Your task to perform on an android device: Clear the shopping cart on ebay.com. Image 0: 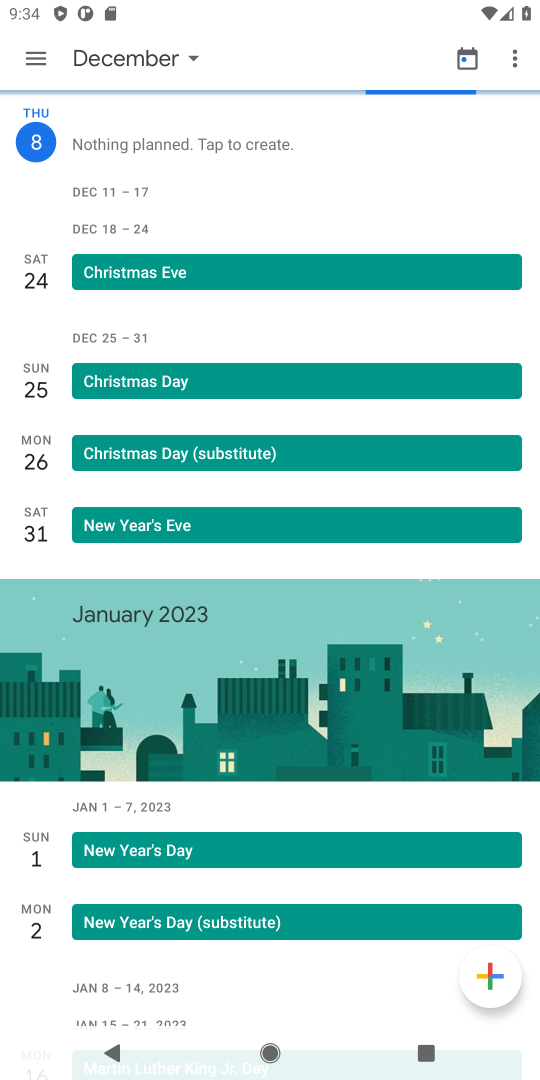
Step 0: press home button
Your task to perform on an android device: Clear the shopping cart on ebay.com. Image 1: 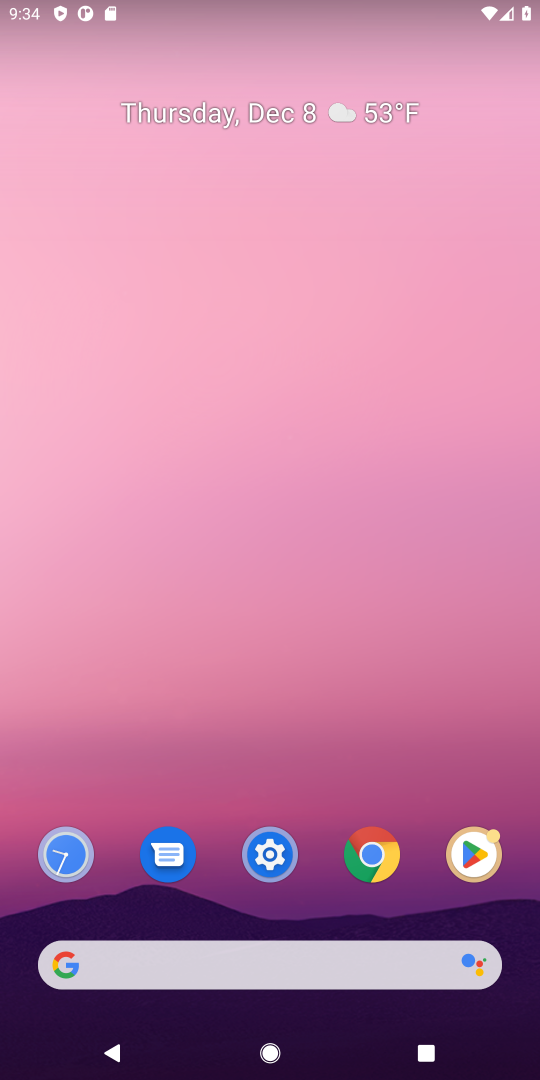
Step 1: click (88, 965)
Your task to perform on an android device: Clear the shopping cart on ebay.com. Image 2: 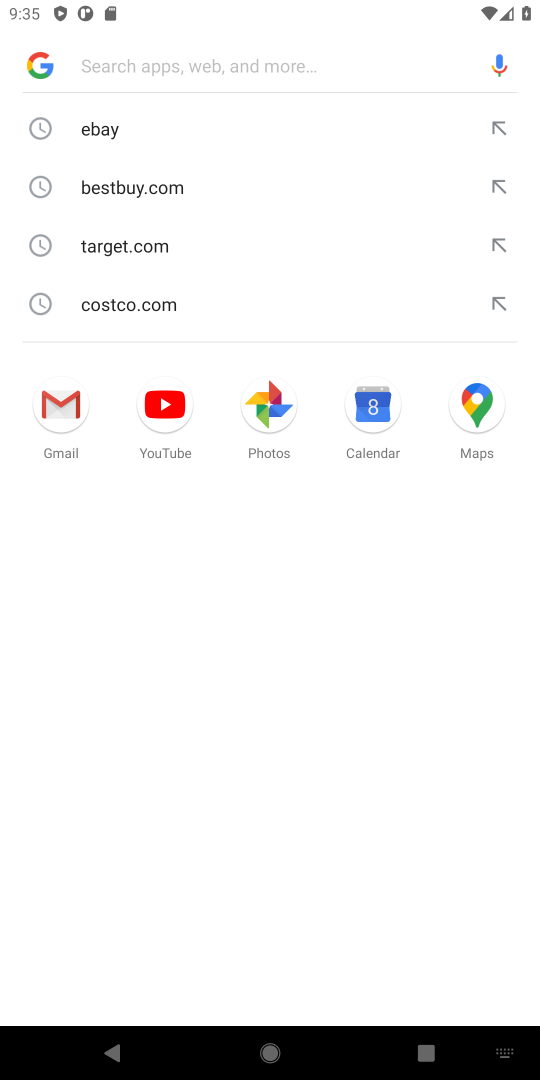
Step 2: press enter
Your task to perform on an android device: Clear the shopping cart on ebay.com. Image 3: 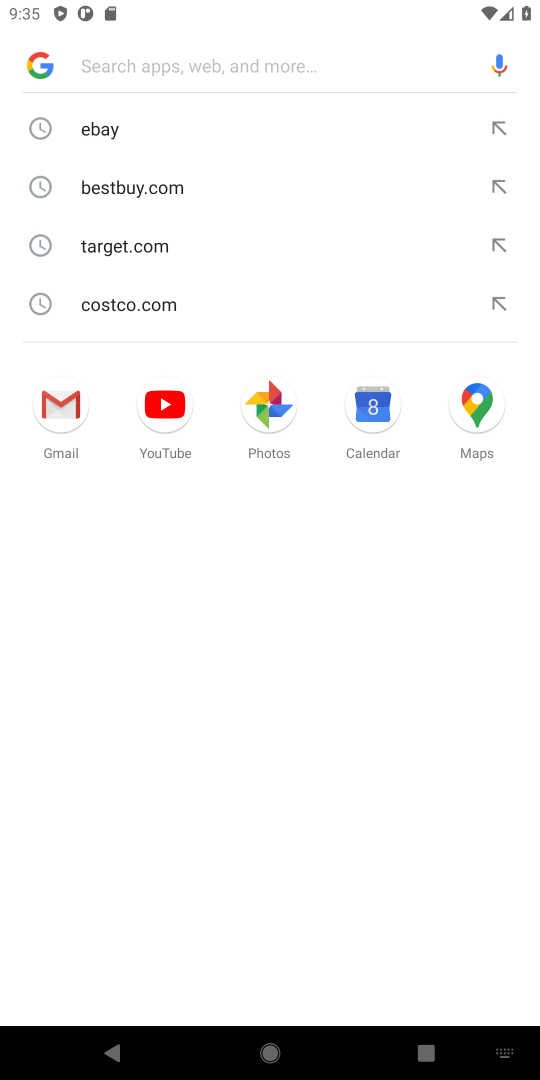
Step 3: type "ebay.com"
Your task to perform on an android device: Clear the shopping cart on ebay.com. Image 4: 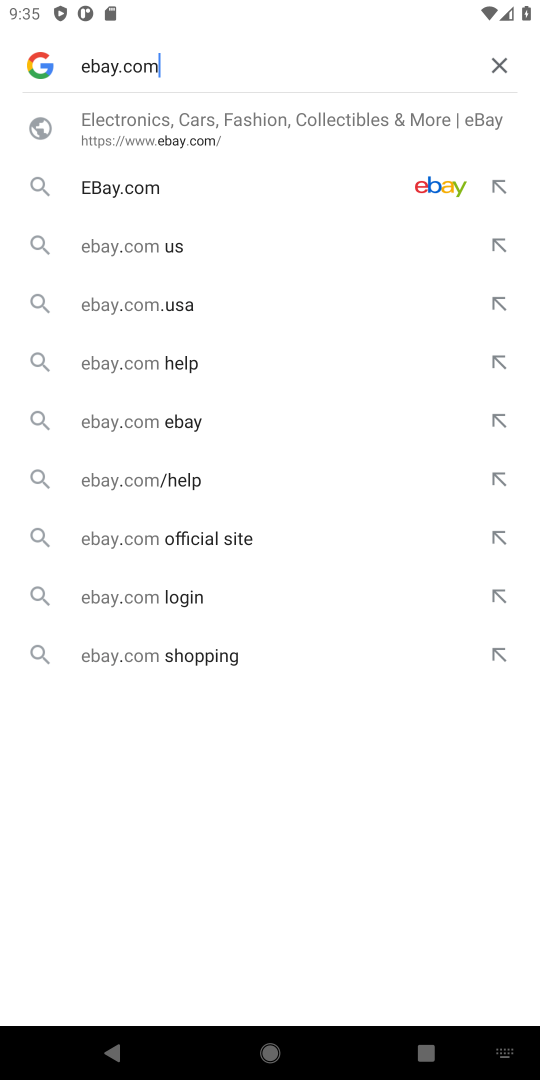
Step 4: press enter
Your task to perform on an android device: Clear the shopping cart on ebay.com. Image 5: 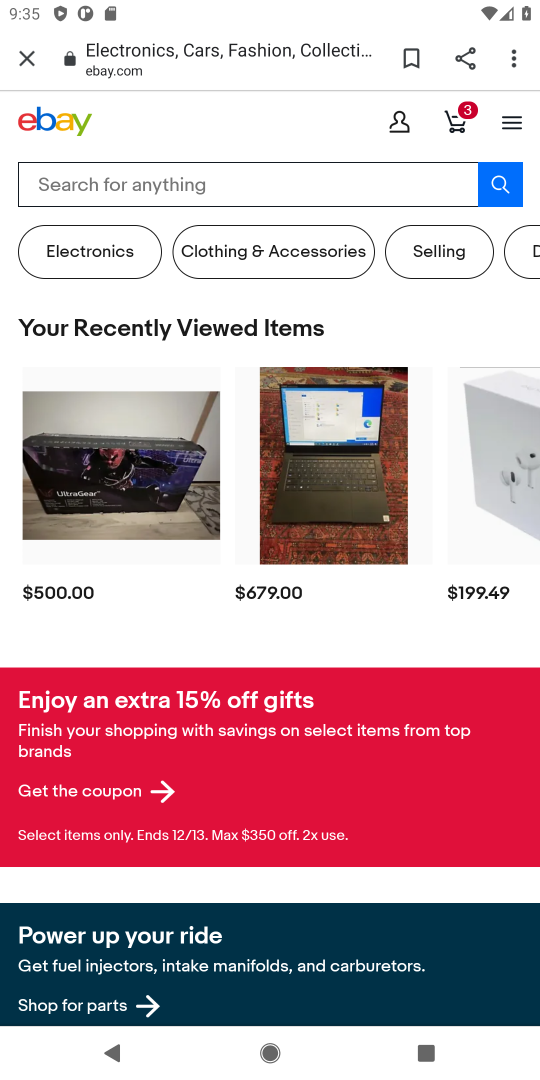
Step 5: click (453, 109)
Your task to perform on an android device: Clear the shopping cart on ebay.com. Image 6: 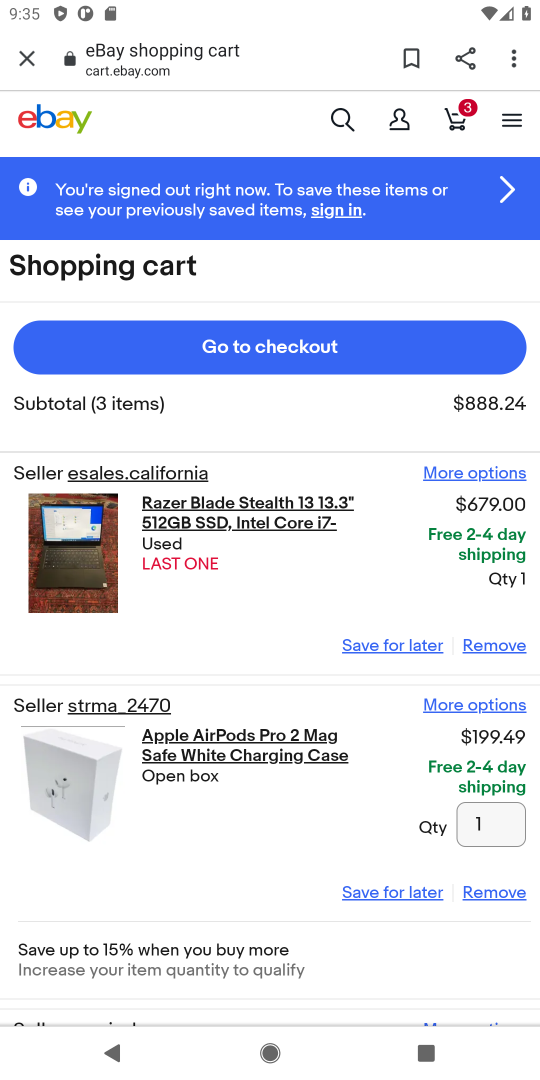
Step 6: click (494, 652)
Your task to perform on an android device: Clear the shopping cart on ebay.com. Image 7: 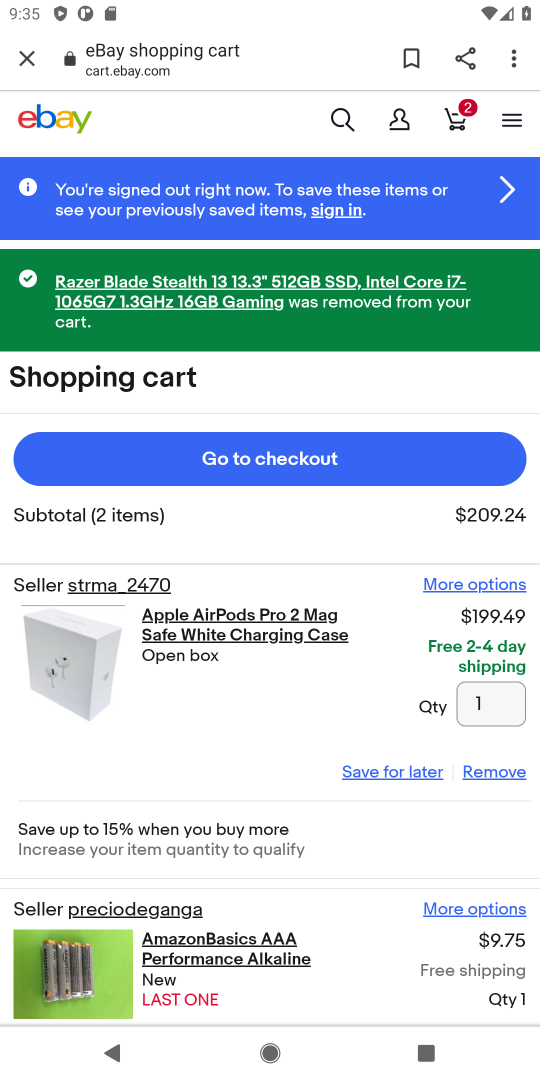
Step 7: click (495, 777)
Your task to perform on an android device: Clear the shopping cart on ebay.com. Image 8: 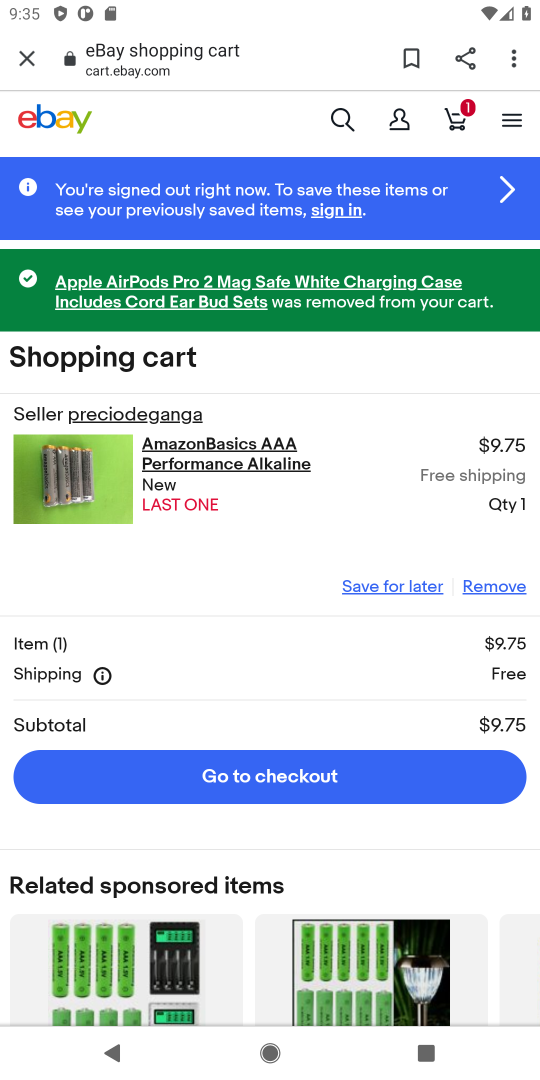
Step 8: click (482, 586)
Your task to perform on an android device: Clear the shopping cart on ebay.com. Image 9: 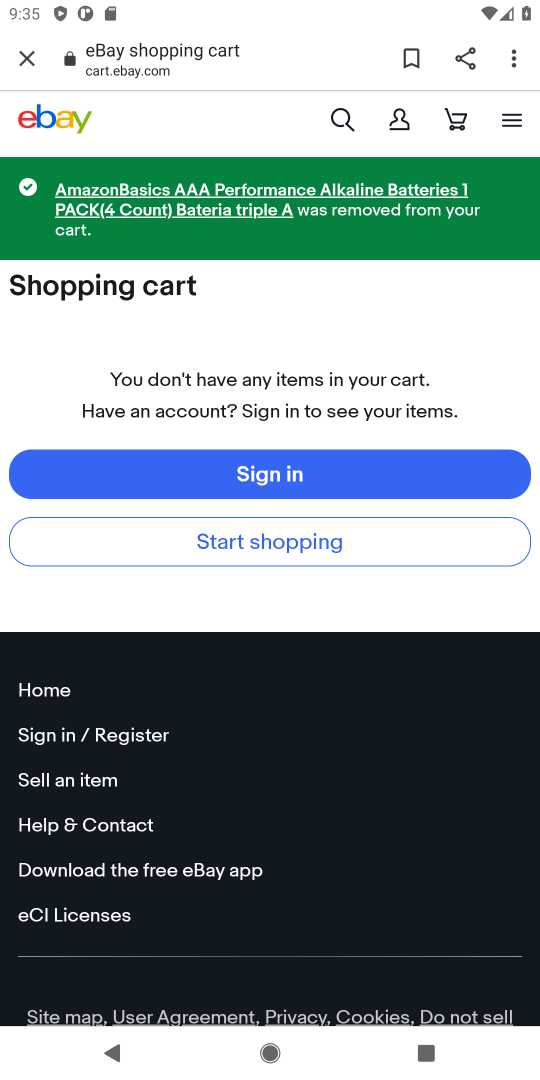
Step 9: task complete